Your task to perform on an android device: toggle notification dots Image 0: 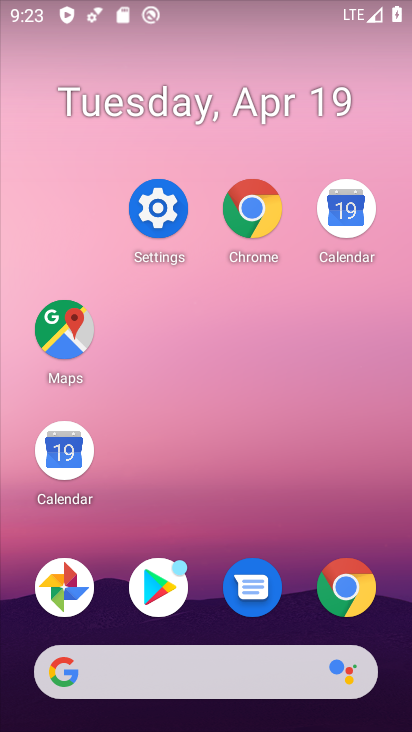
Step 0: drag from (352, 661) to (188, 136)
Your task to perform on an android device: toggle notification dots Image 1: 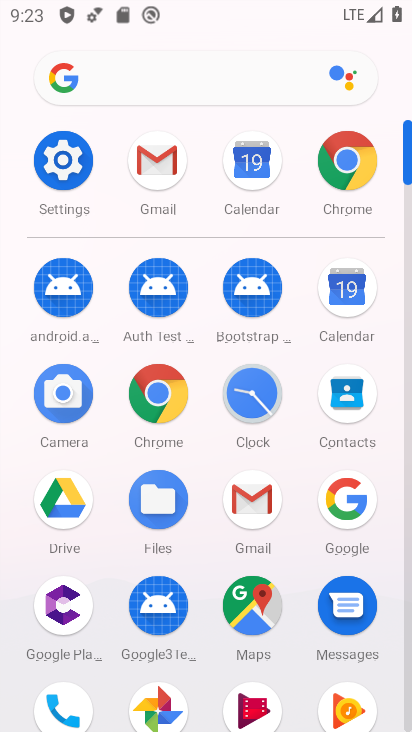
Step 1: click (59, 167)
Your task to perform on an android device: toggle notification dots Image 2: 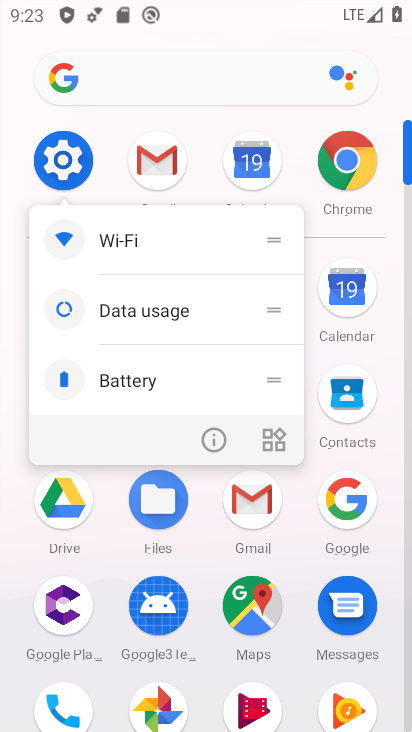
Step 2: click (59, 166)
Your task to perform on an android device: toggle notification dots Image 3: 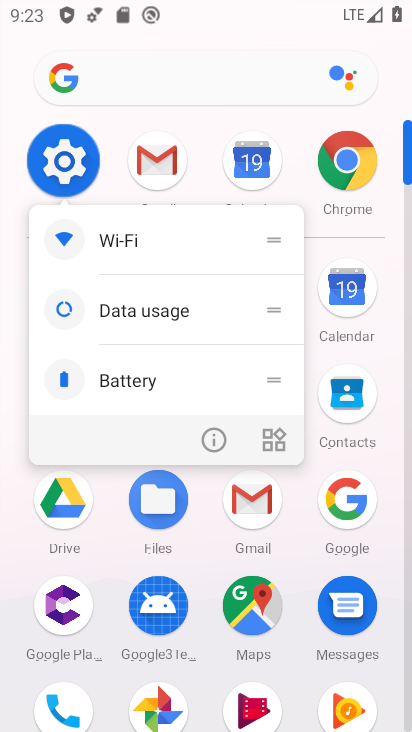
Step 3: click (59, 166)
Your task to perform on an android device: toggle notification dots Image 4: 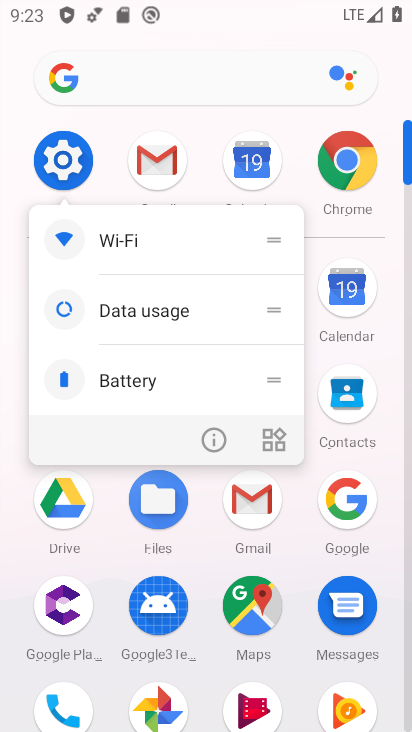
Step 4: click (68, 157)
Your task to perform on an android device: toggle notification dots Image 5: 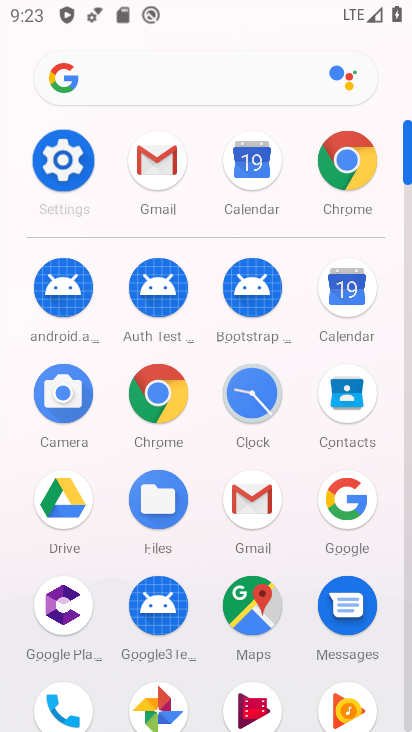
Step 5: click (72, 162)
Your task to perform on an android device: toggle notification dots Image 6: 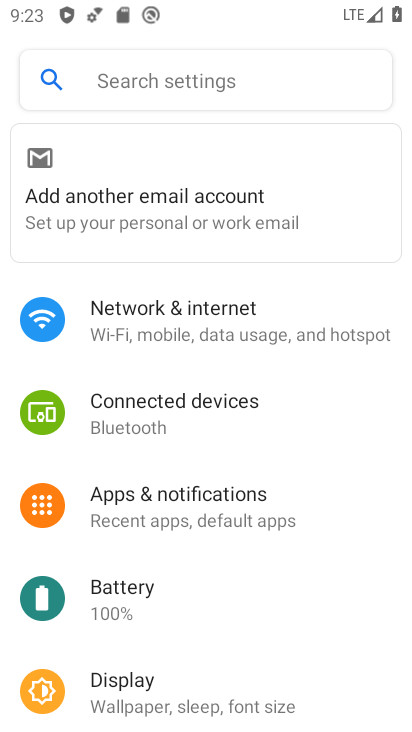
Step 6: click (208, 514)
Your task to perform on an android device: toggle notification dots Image 7: 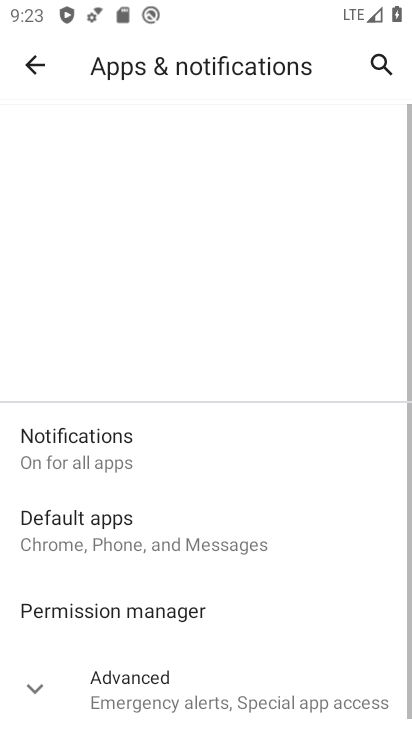
Step 7: click (208, 514)
Your task to perform on an android device: toggle notification dots Image 8: 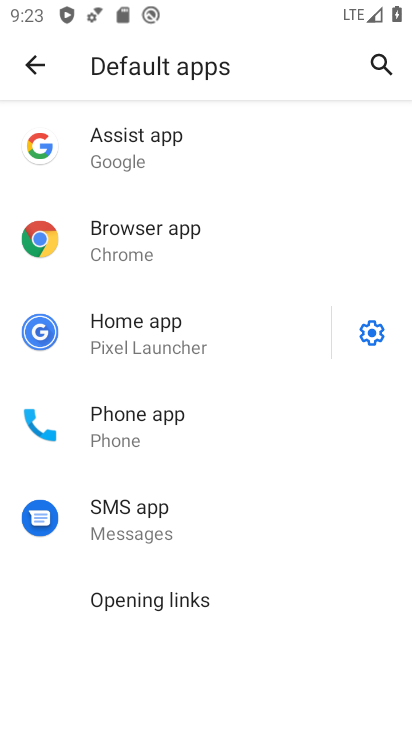
Step 8: click (28, 69)
Your task to perform on an android device: toggle notification dots Image 9: 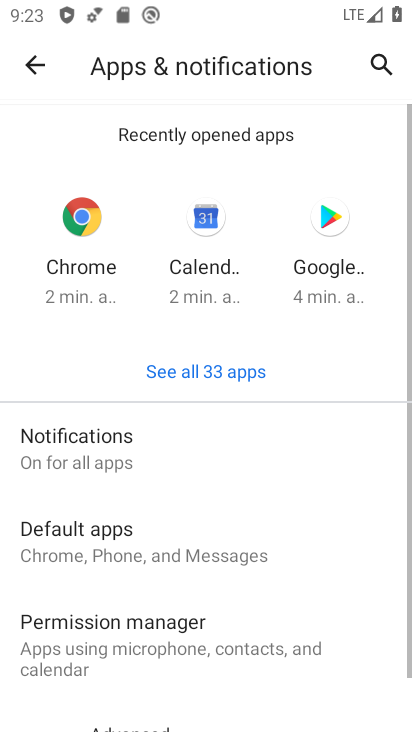
Step 9: drag from (172, 481) to (151, 173)
Your task to perform on an android device: toggle notification dots Image 10: 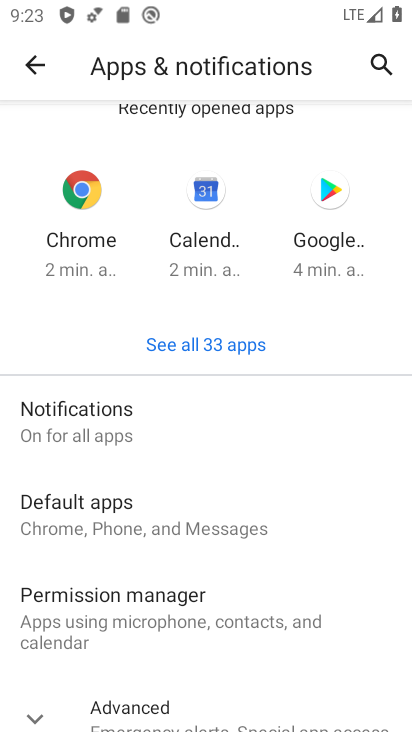
Step 10: drag from (210, 571) to (141, 202)
Your task to perform on an android device: toggle notification dots Image 11: 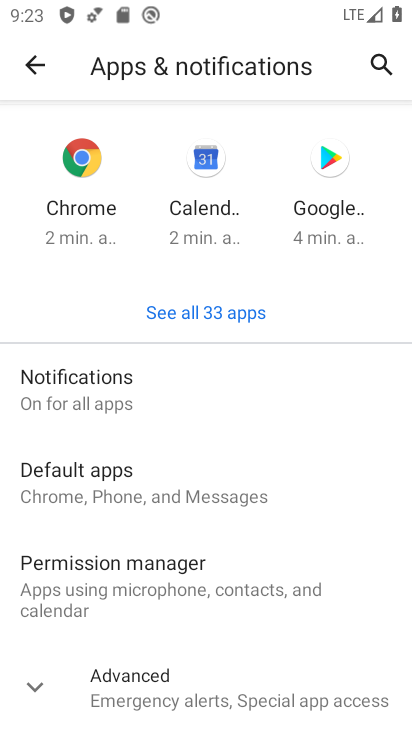
Step 11: drag from (216, 517) to (242, 235)
Your task to perform on an android device: toggle notification dots Image 12: 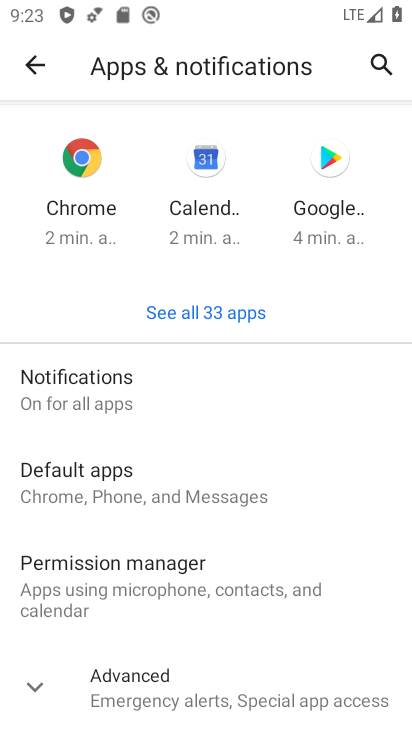
Step 12: click (62, 401)
Your task to perform on an android device: toggle notification dots Image 13: 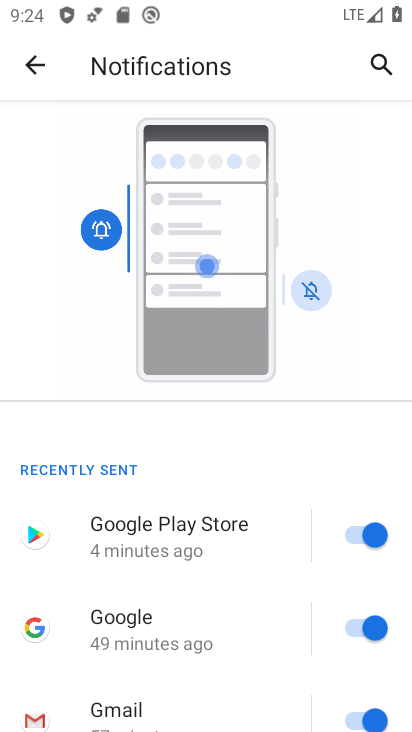
Step 13: drag from (153, 587) to (132, 291)
Your task to perform on an android device: toggle notification dots Image 14: 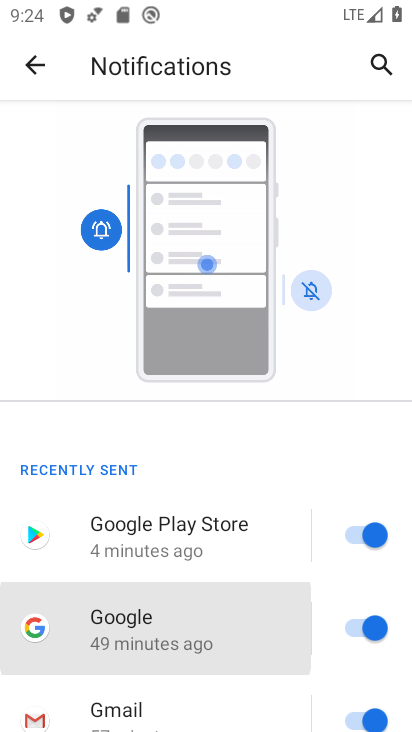
Step 14: drag from (199, 622) to (167, 176)
Your task to perform on an android device: toggle notification dots Image 15: 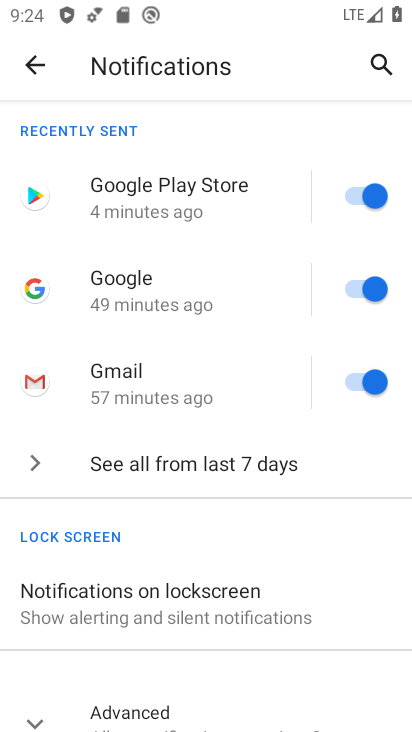
Step 15: drag from (202, 610) to (200, 217)
Your task to perform on an android device: toggle notification dots Image 16: 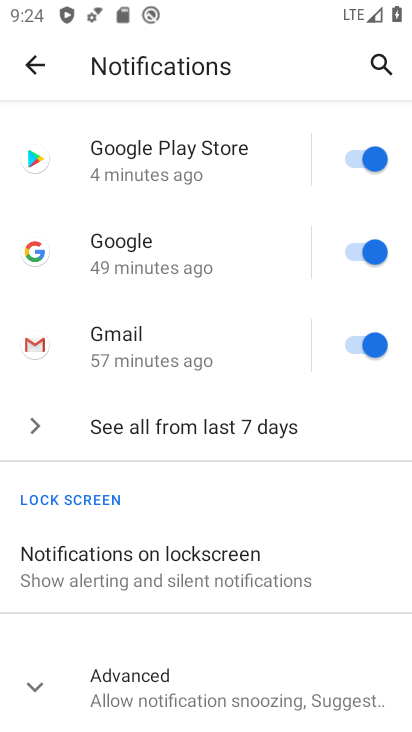
Step 16: click (110, 688)
Your task to perform on an android device: toggle notification dots Image 17: 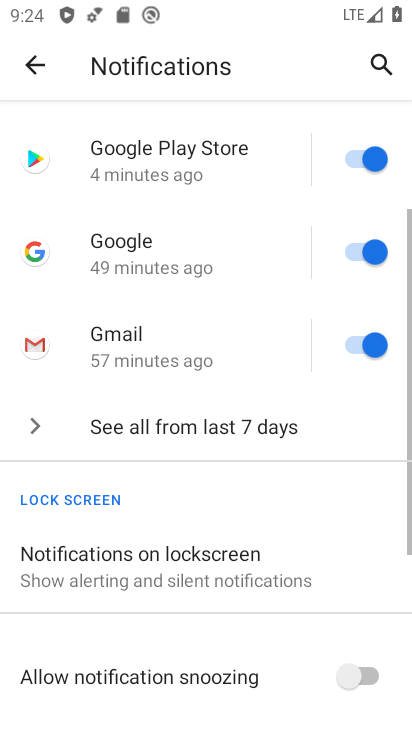
Step 17: drag from (179, 653) to (150, 173)
Your task to perform on an android device: toggle notification dots Image 18: 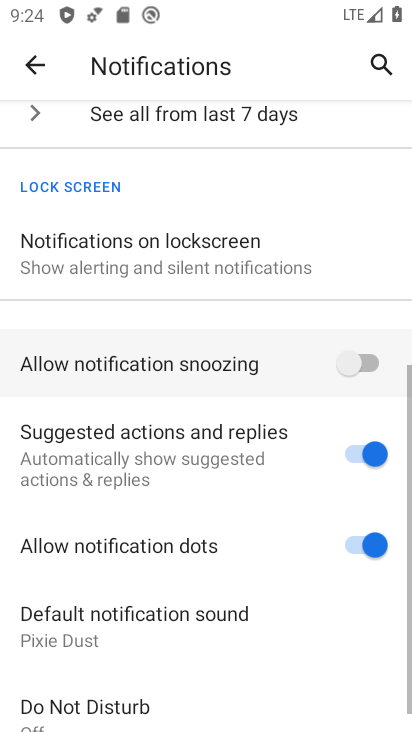
Step 18: drag from (206, 495) to (181, 114)
Your task to perform on an android device: toggle notification dots Image 19: 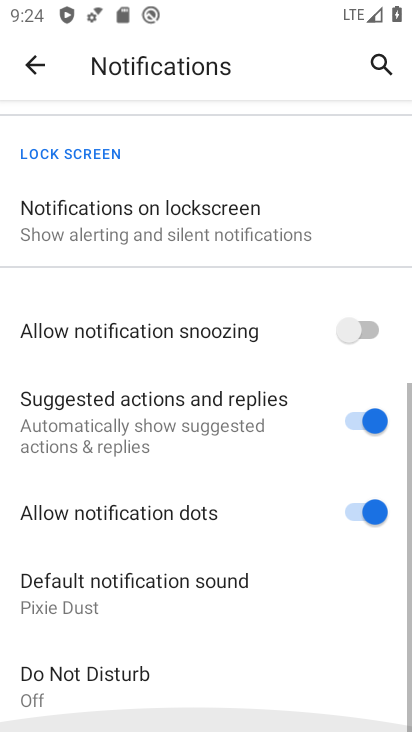
Step 19: drag from (213, 382) to (238, 112)
Your task to perform on an android device: toggle notification dots Image 20: 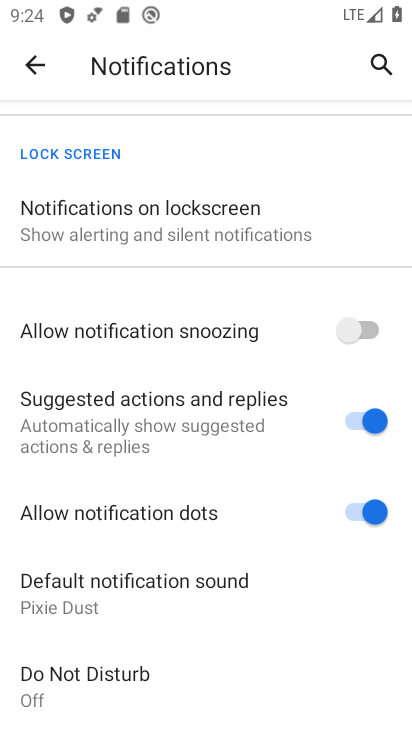
Step 20: click (369, 504)
Your task to perform on an android device: toggle notification dots Image 21: 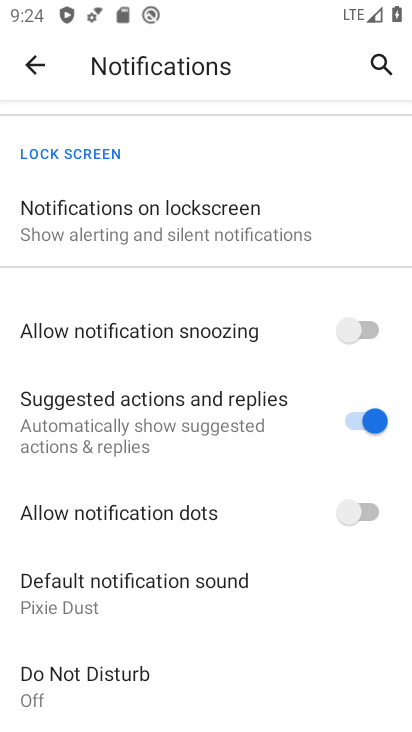
Step 21: task complete